Your task to perform on an android device: Search for a new foundation (skincare) product Image 0: 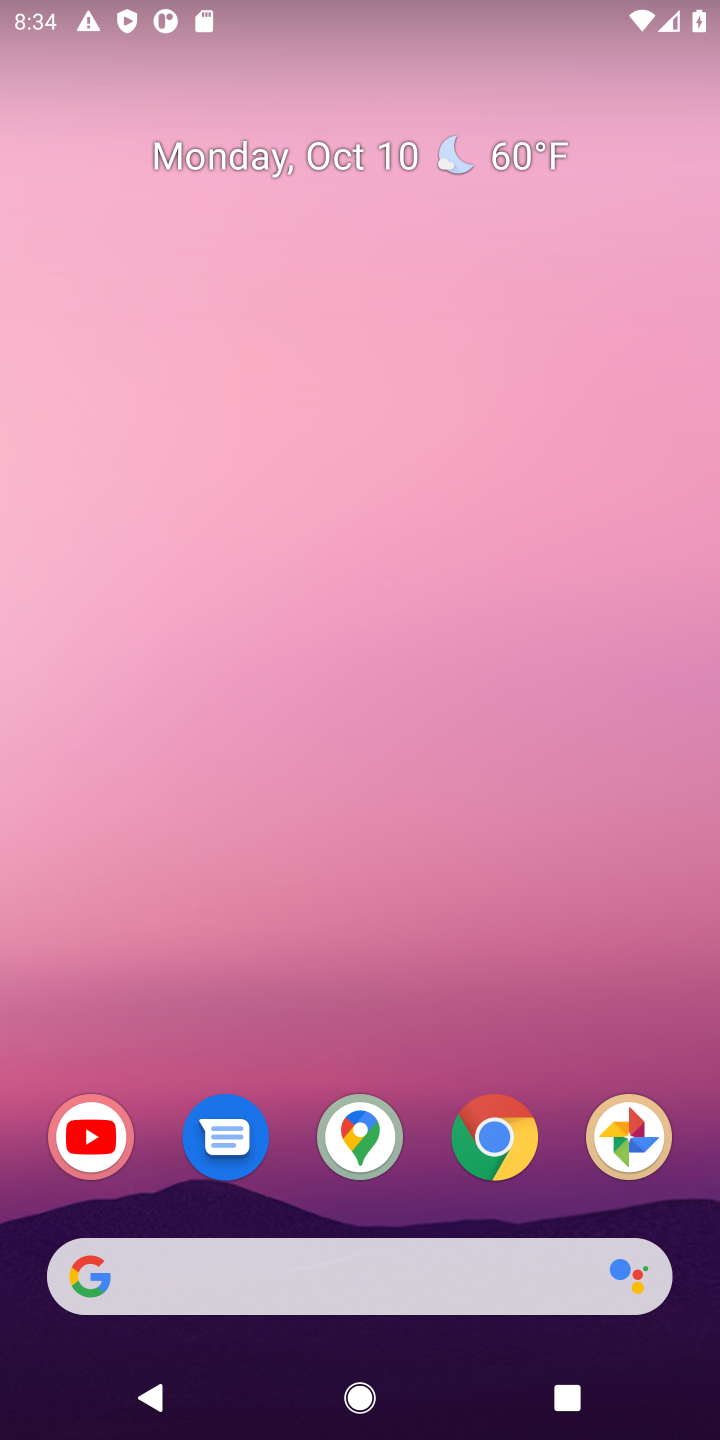
Step 0: click (501, 1137)
Your task to perform on an android device: Search for a new foundation (skincare) product Image 1: 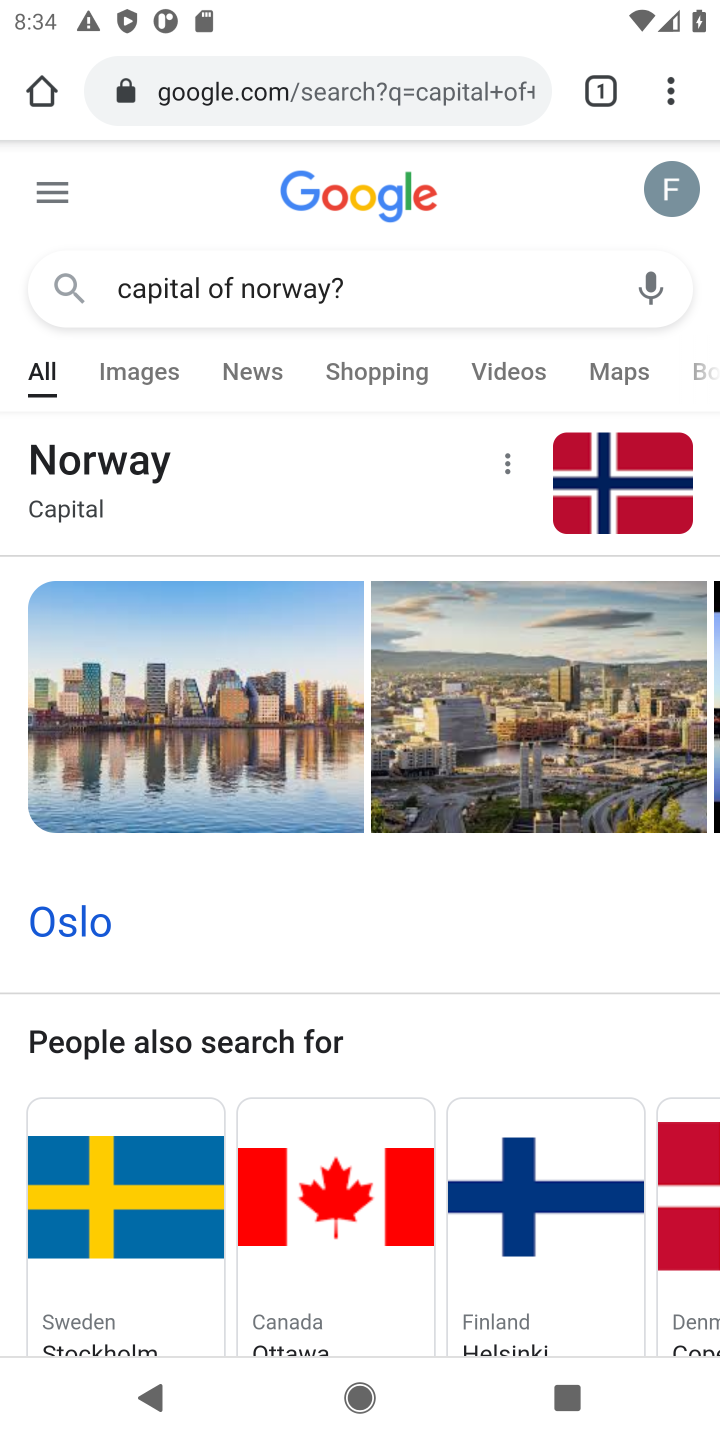
Step 1: click (369, 59)
Your task to perform on an android device: Search for a new foundation (skincare) product Image 2: 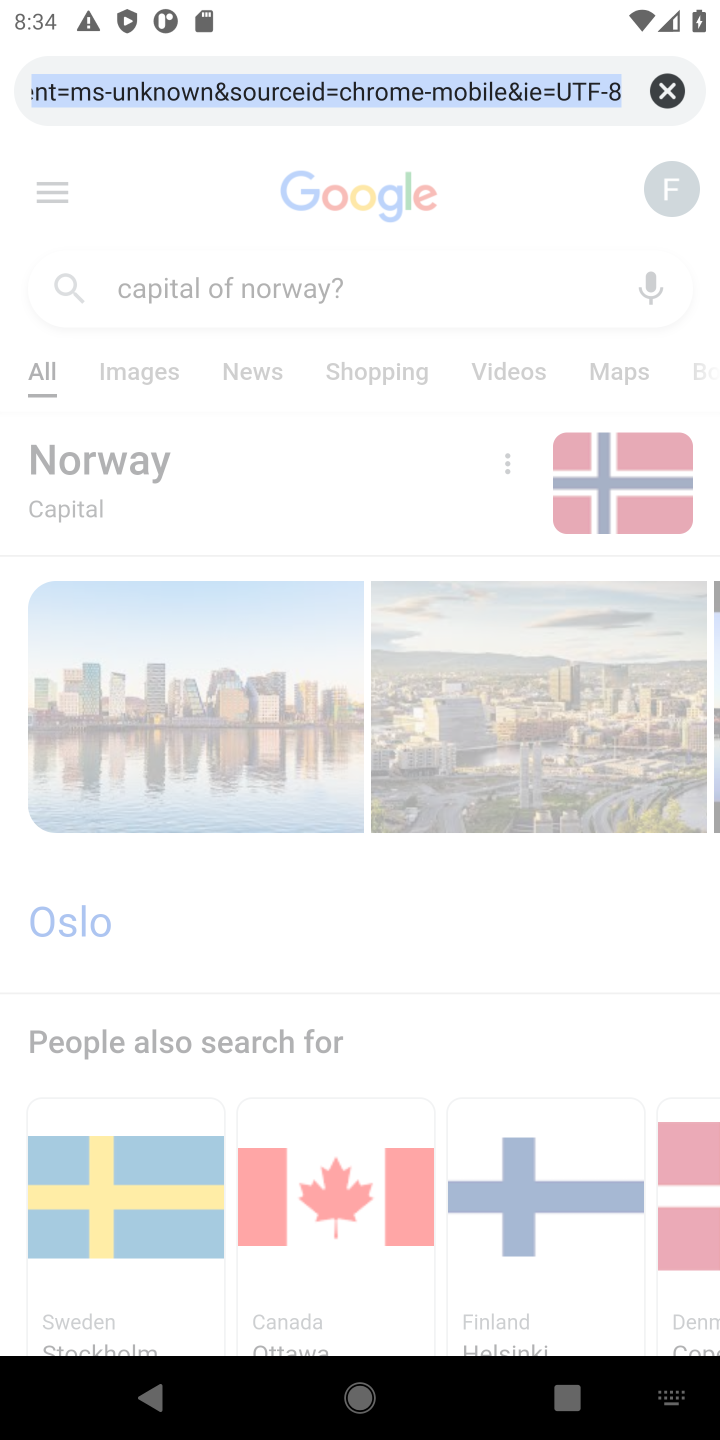
Step 2: click (662, 85)
Your task to perform on an android device: Search for a new foundation (skincare) product Image 3: 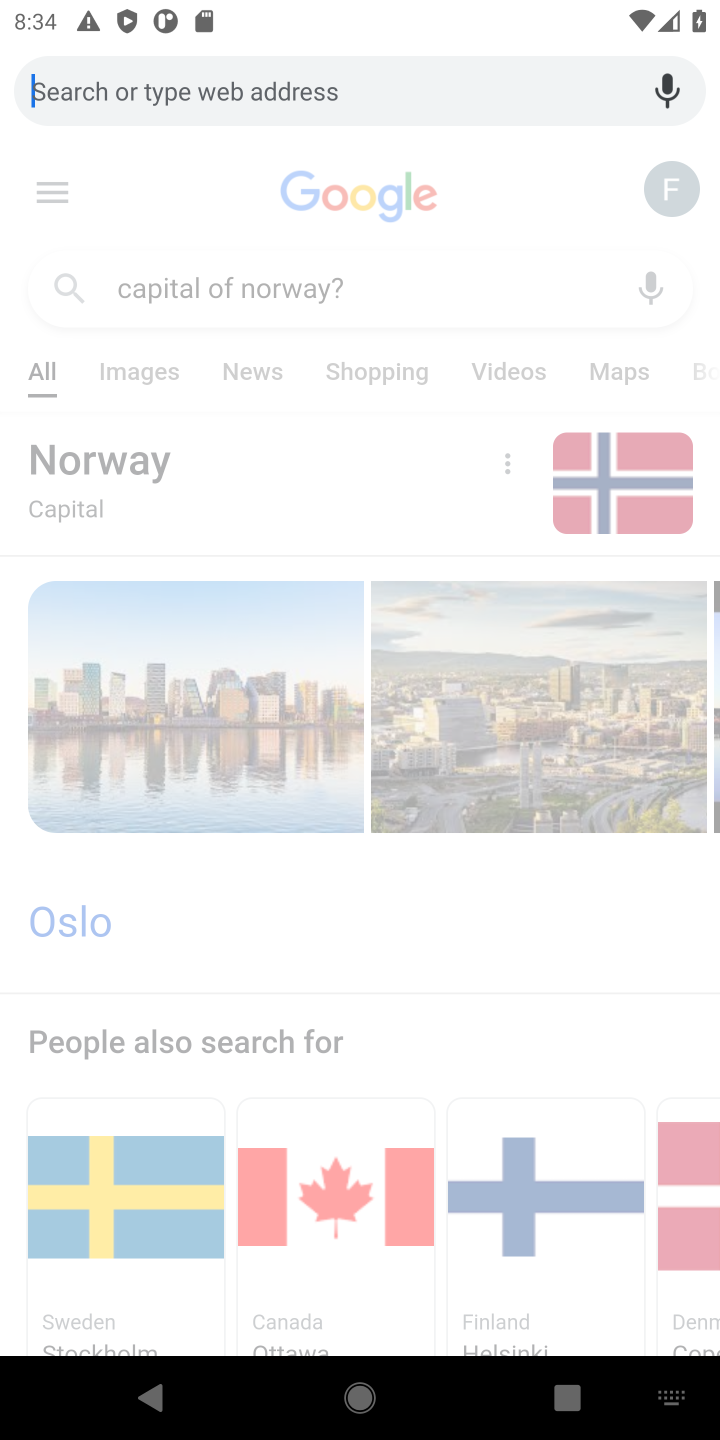
Step 3: type "new foundation product"
Your task to perform on an android device: Search for a new foundation (skincare) product Image 4: 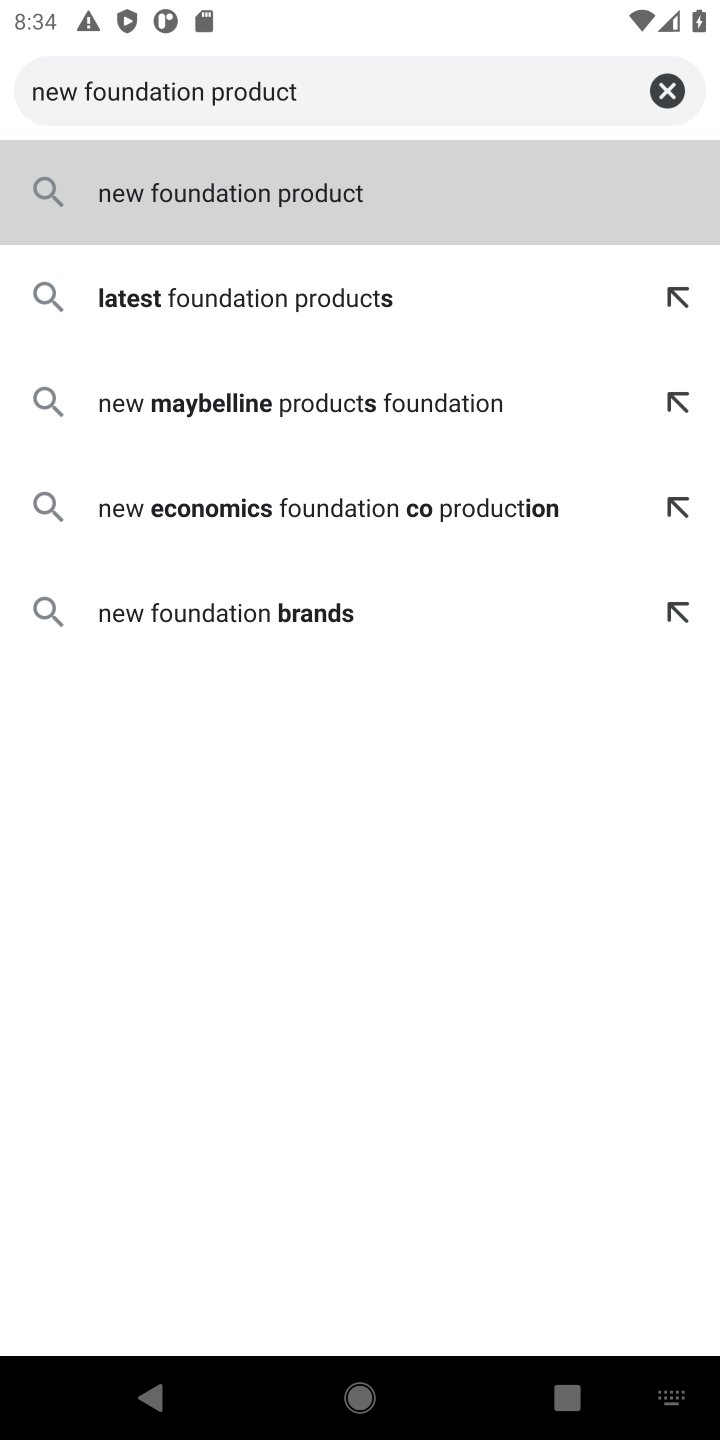
Step 4: click (160, 172)
Your task to perform on an android device: Search for a new foundation (skincare) product Image 5: 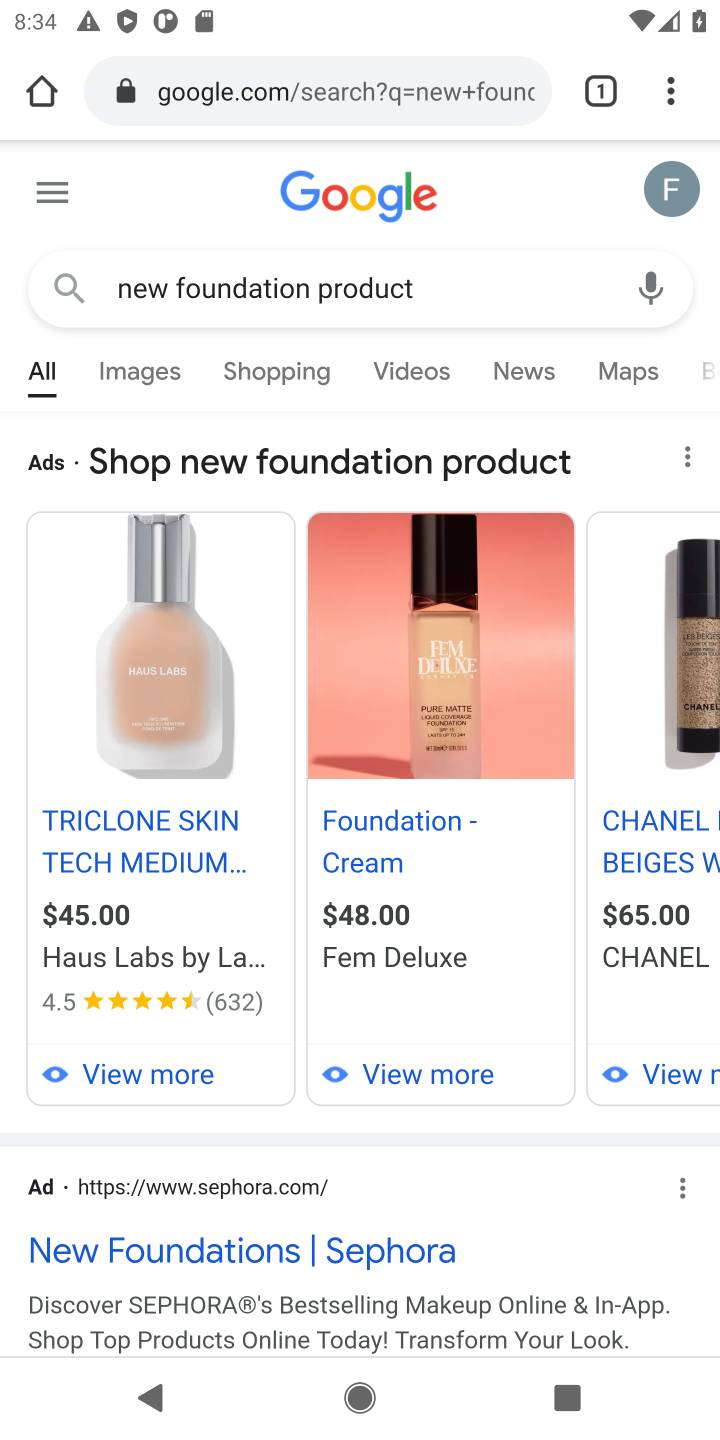
Step 5: drag from (301, 1123) to (300, 553)
Your task to perform on an android device: Search for a new foundation (skincare) product Image 6: 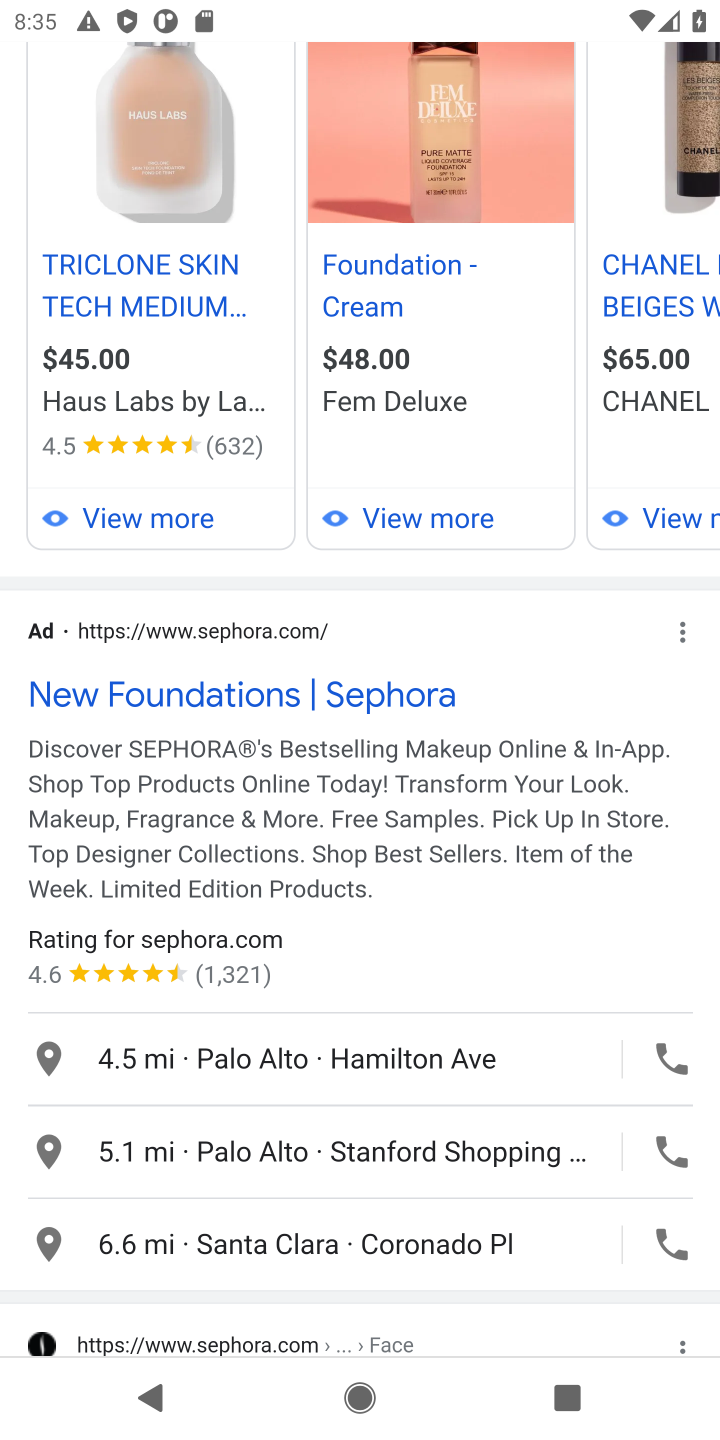
Step 6: click (172, 708)
Your task to perform on an android device: Search for a new foundation (skincare) product Image 7: 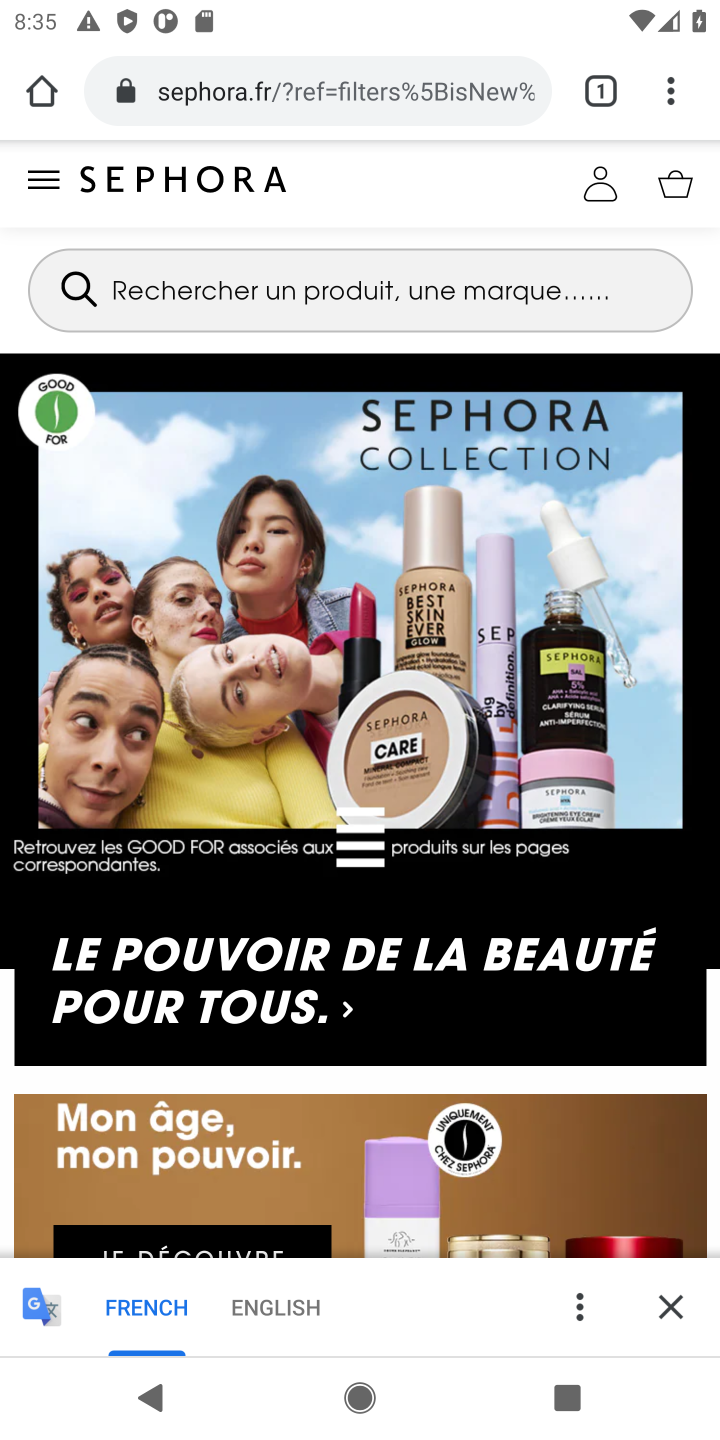
Step 7: task complete